Your task to perform on an android device: open wifi settings Image 0: 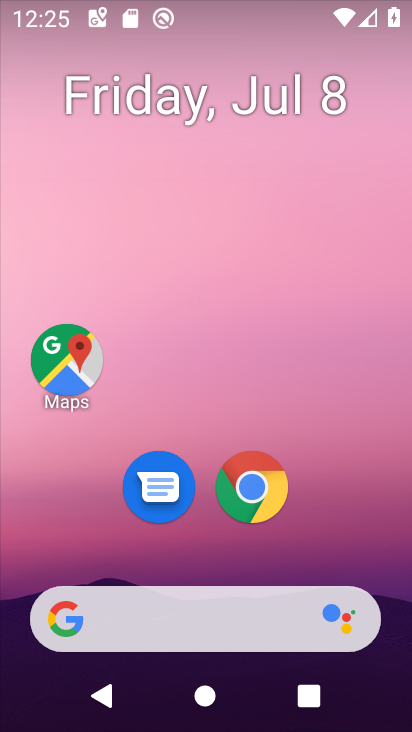
Step 0: drag from (354, 532) to (326, 212)
Your task to perform on an android device: open wifi settings Image 1: 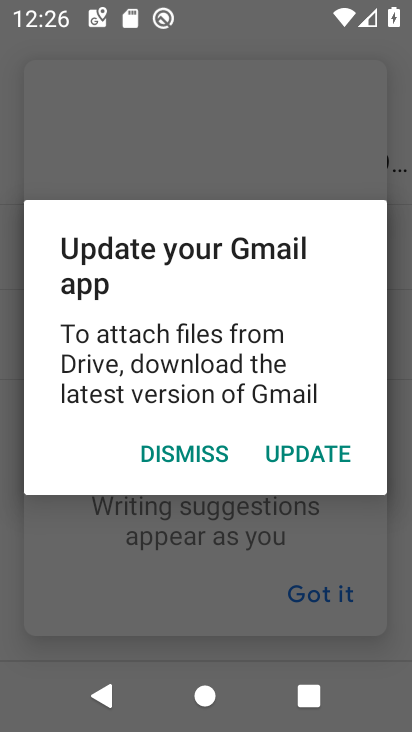
Step 1: press home button
Your task to perform on an android device: open wifi settings Image 2: 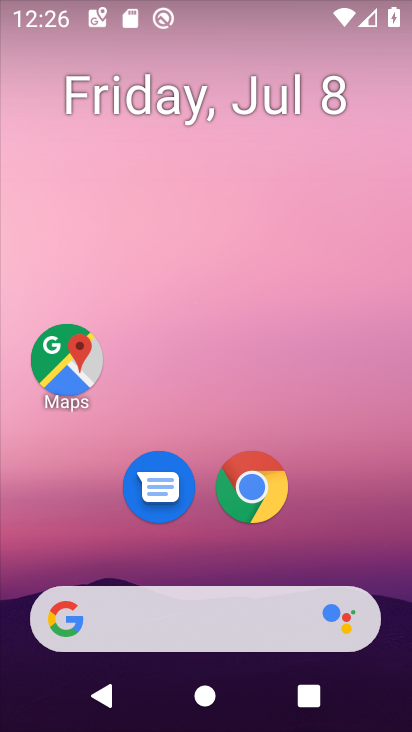
Step 2: drag from (382, 561) to (378, 209)
Your task to perform on an android device: open wifi settings Image 3: 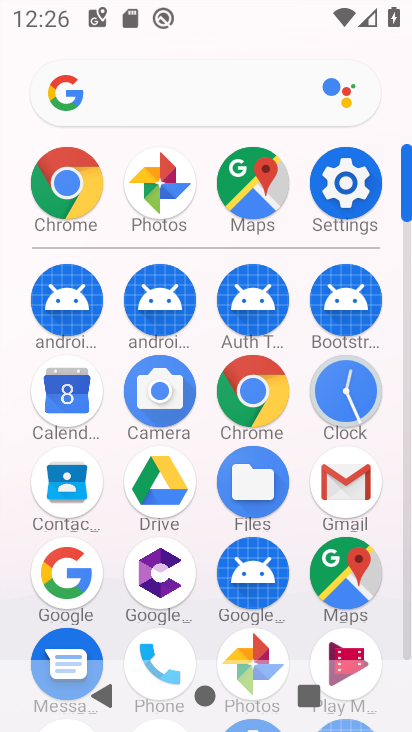
Step 3: click (361, 186)
Your task to perform on an android device: open wifi settings Image 4: 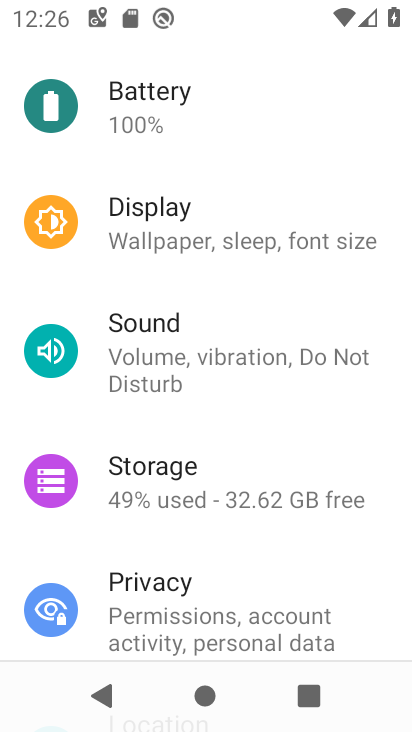
Step 4: drag from (373, 552) to (388, 442)
Your task to perform on an android device: open wifi settings Image 5: 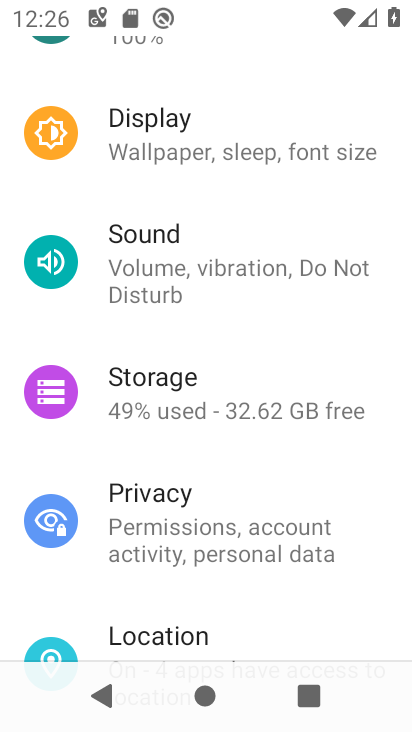
Step 5: drag from (370, 547) to (369, 452)
Your task to perform on an android device: open wifi settings Image 6: 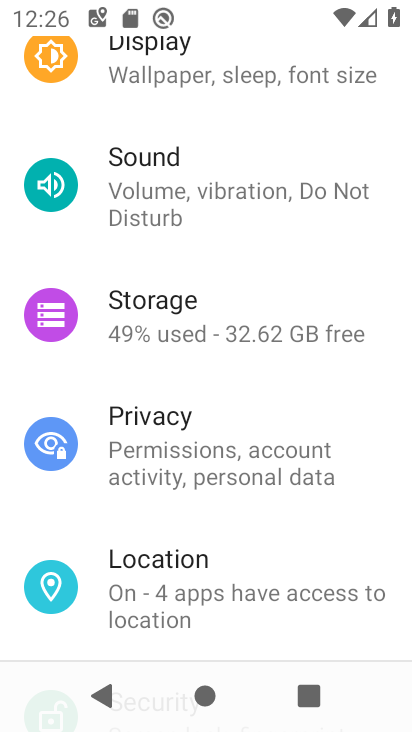
Step 6: drag from (361, 397) to (369, 457)
Your task to perform on an android device: open wifi settings Image 7: 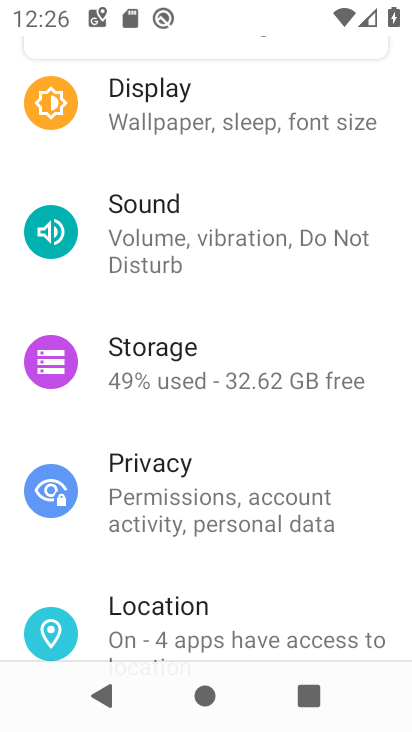
Step 7: drag from (369, 365) to (380, 459)
Your task to perform on an android device: open wifi settings Image 8: 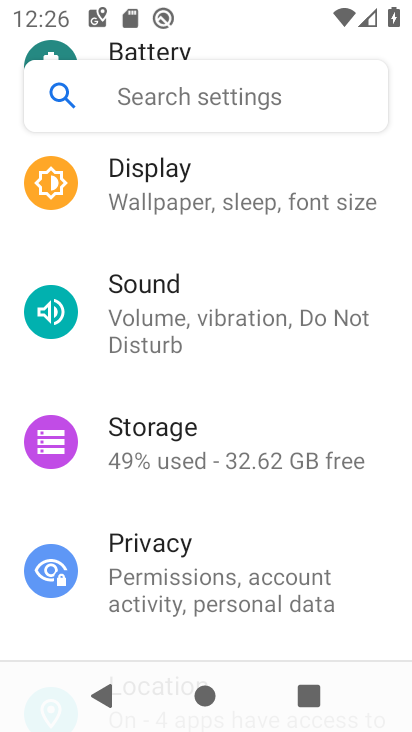
Step 8: drag from (374, 365) to (377, 425)
Your task to perform on an android device: open wifi settings Image 9: 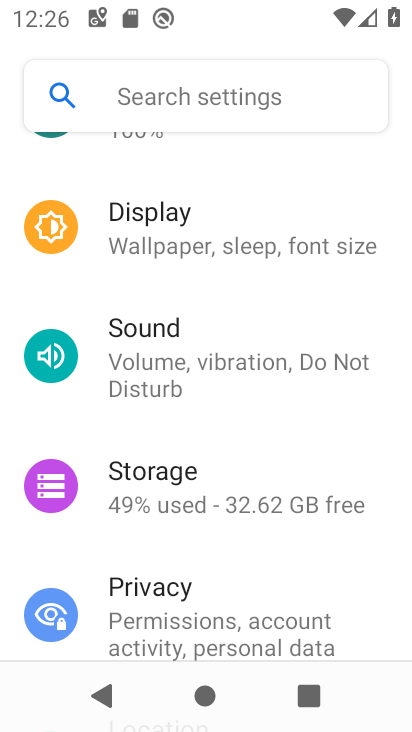
Step 9: drag from (382, 331) to (387, 414)
Your task to perform on an android device: open wifi settings Image 10: 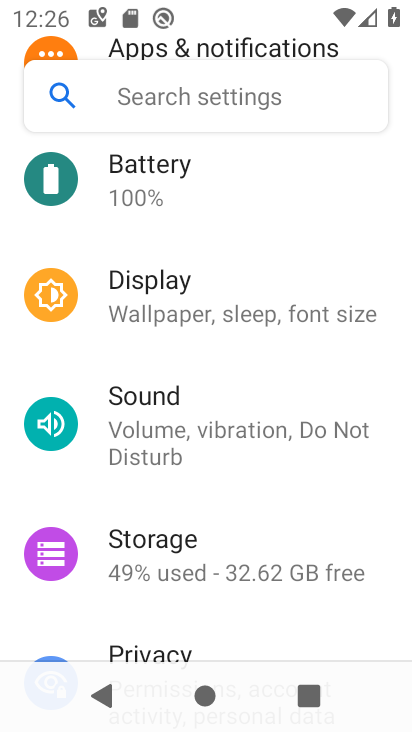
Step 10: drag from (381, 281) to (381, 383)
Your task to perform on an android device: open wifi settings Image 11: 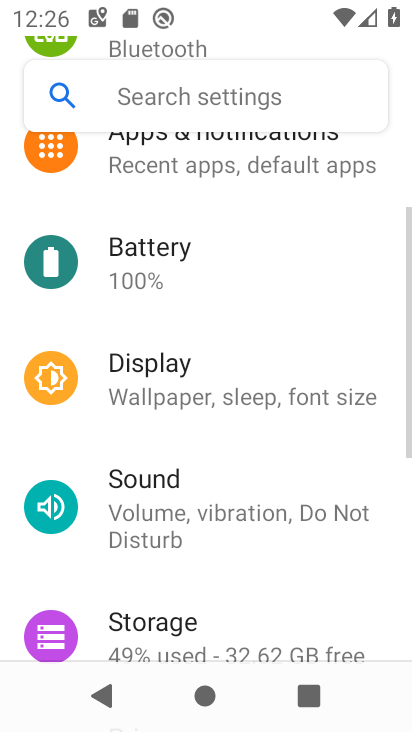
Step 11: drag from (373, 276) to (376, 371)
Your task to perform on an android device: open wifi settings Image 12: 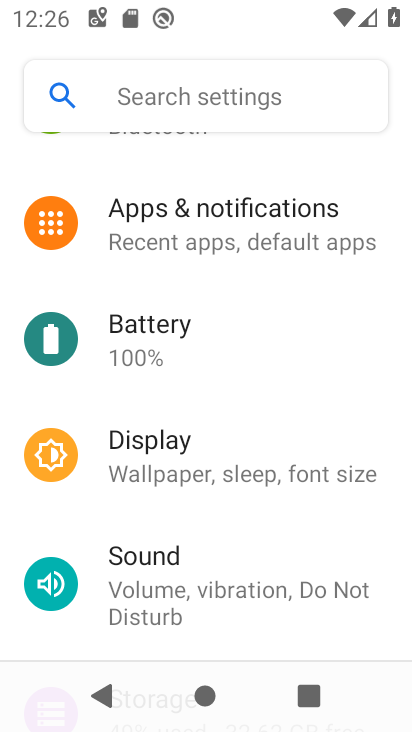
Step 12: drag from (379, 293) to (360, 394)
Your task to perform on an android device: open wifi settings Image 13: 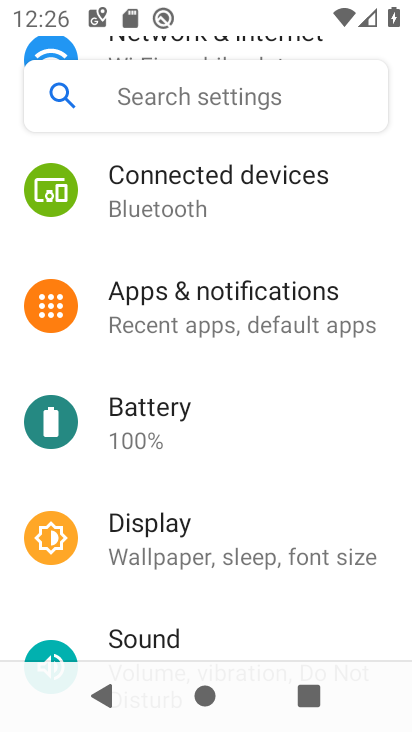
Step 13: drag from (372, 274) to (376, 370)
Your task to perform on an android device: open wifi settings Image 14: 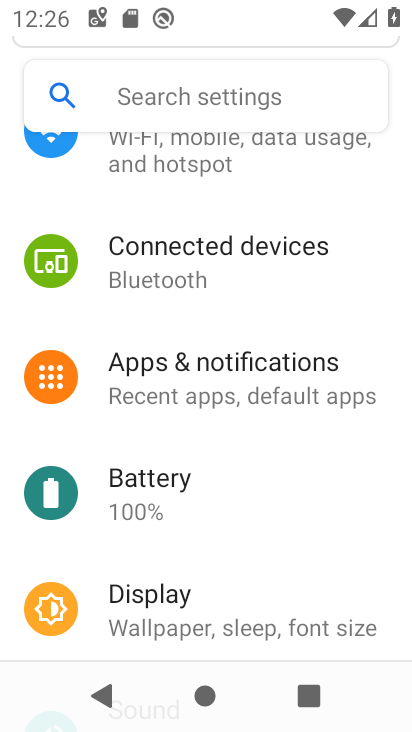
Step 14: drag from (367, 269) to (356, 369)
Your task to perform on an android device: open wifi settings Image 15: 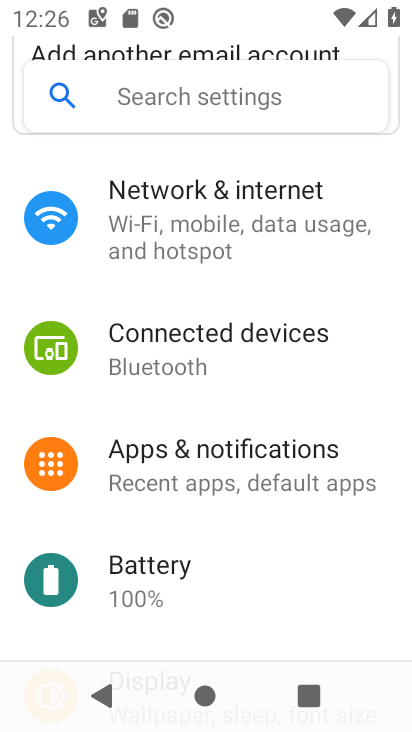
Step 15: drag from (372, 263) to (376, 398)
Your task to perform on an android device: open wifi settings Image 16: 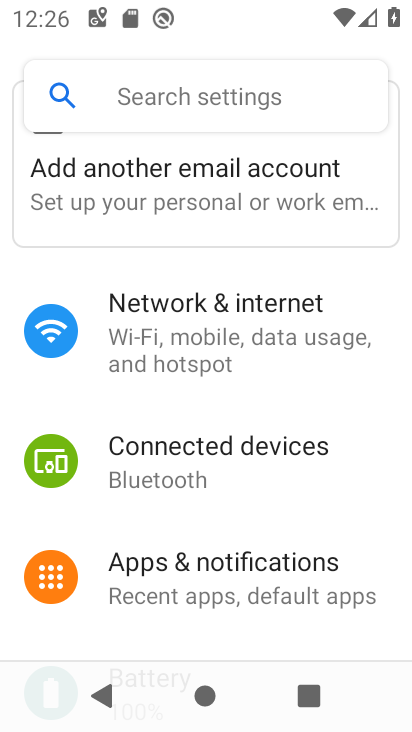
Step 16: click (338, 309)
Your task to perform on an android device: open wifi settings Image 17: 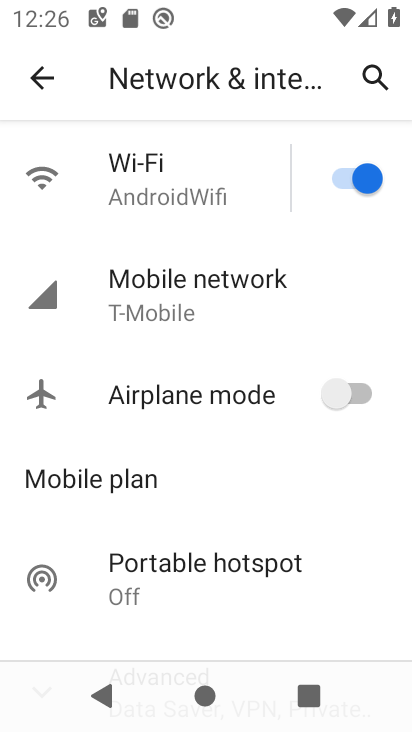
Step 17: click (163, 172)
Your task to perform on an android device: open wifi settings Image 18: 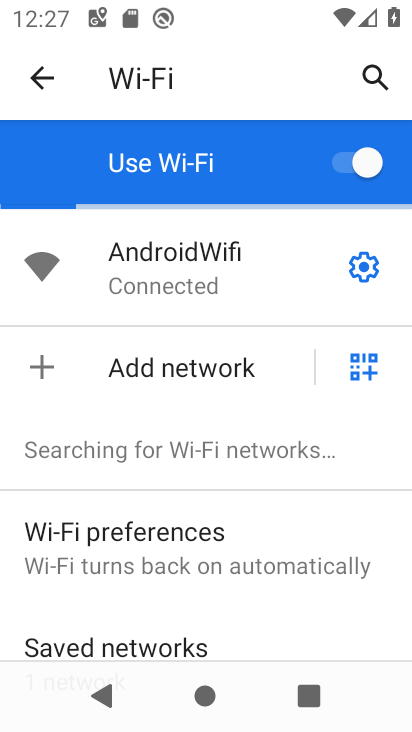
Step 18: task complete